Your task to perform on an android device: move an email to a new category in the gmail app Image 0: 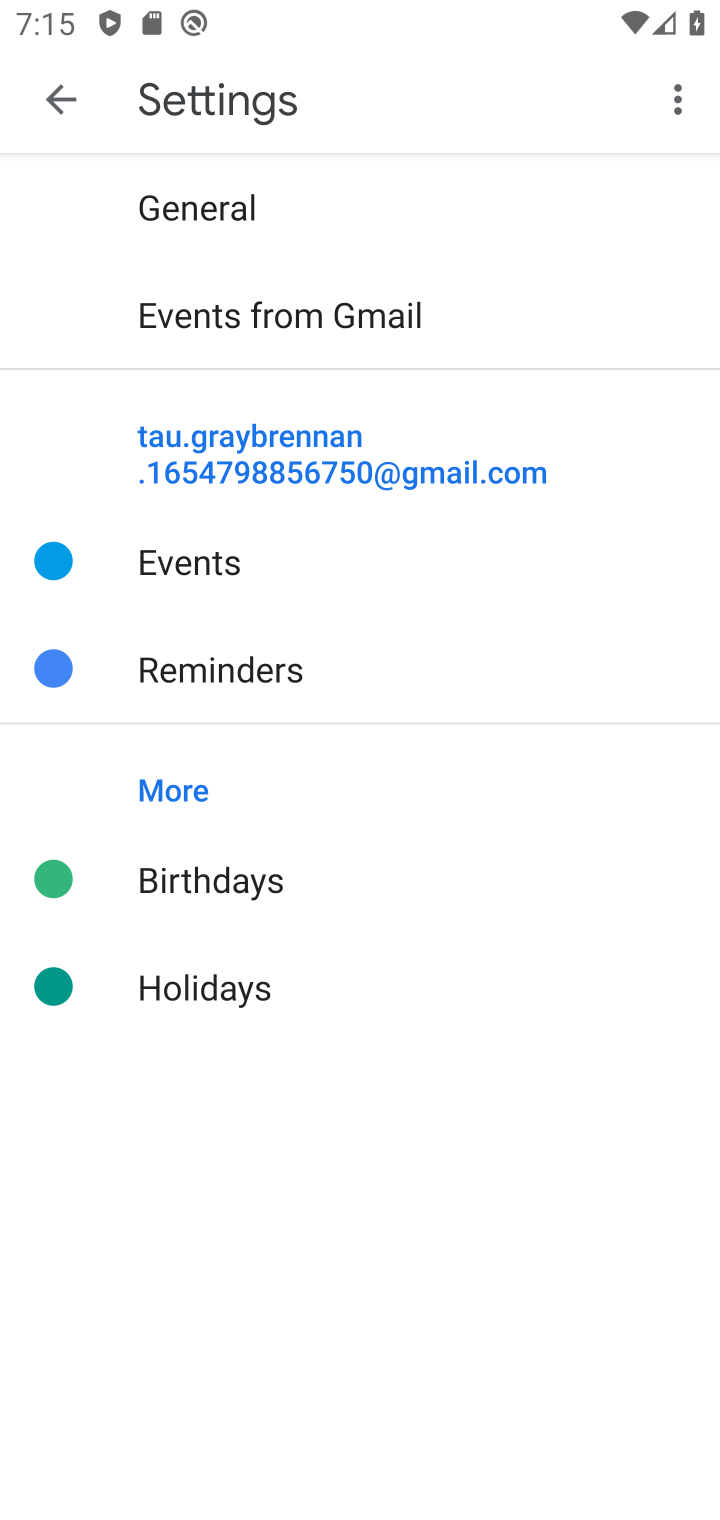
Step 0: press home button
Your task to perform on an android device: move an email to a new category in the gmail app Image 1: 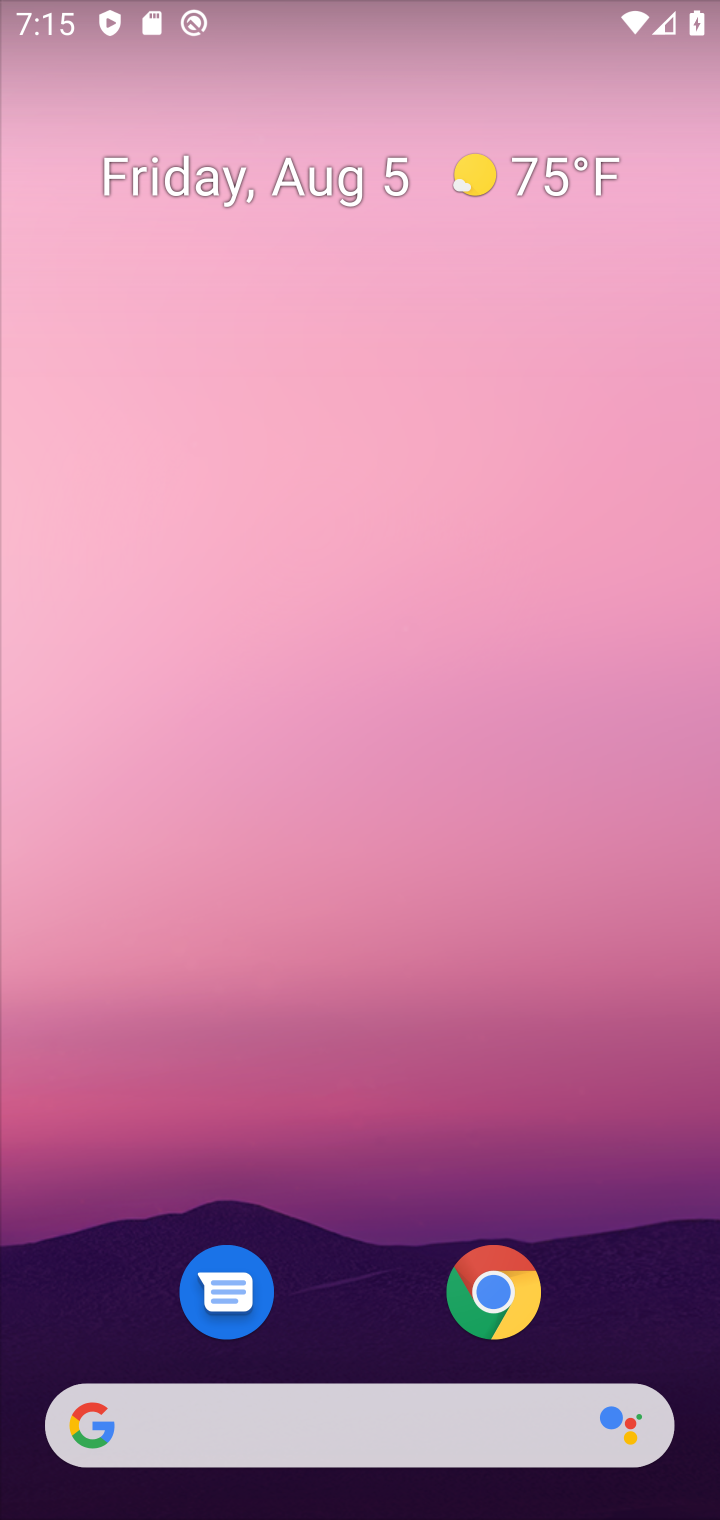
Step 1: drag from (352, 1192) to (393, 20)
Your task to perform on an android device: move an email to a new category in the gmail app Image 2: 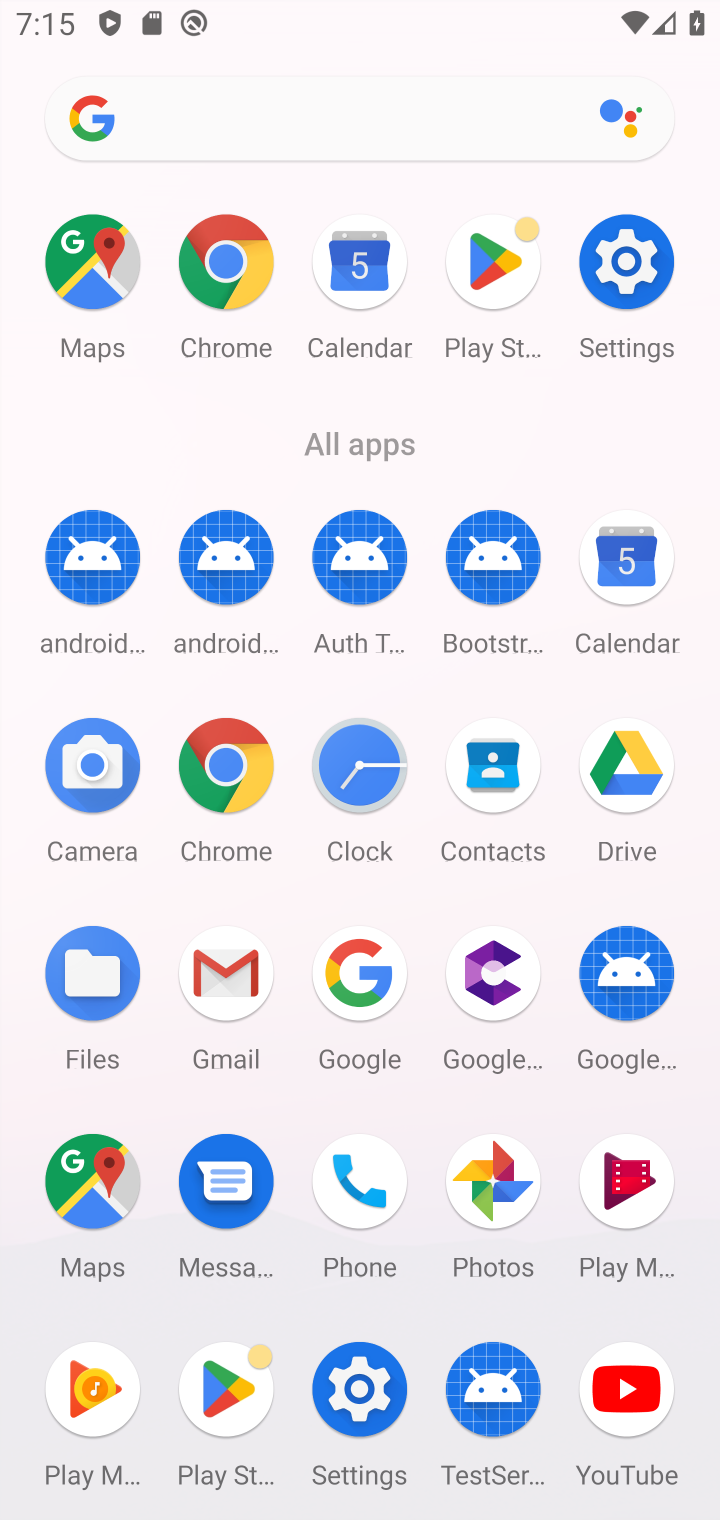
Step 2: click (234, 954)
Your task to perform on an android device: move an email to a new category in the gmail app Image 3: 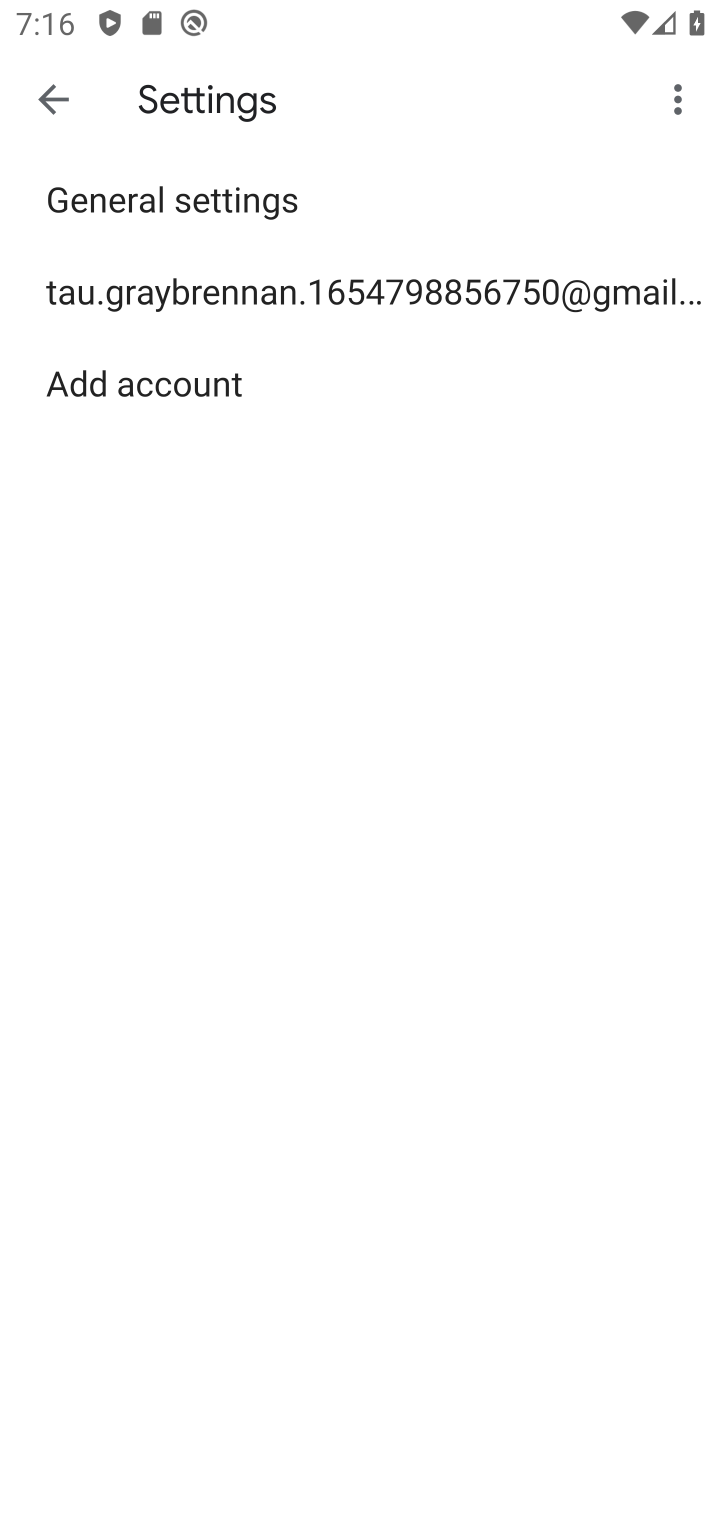
Step 3: click (44, 96)
Your task to perform on an android device: move an email to a new category in the gmail app Image 4: 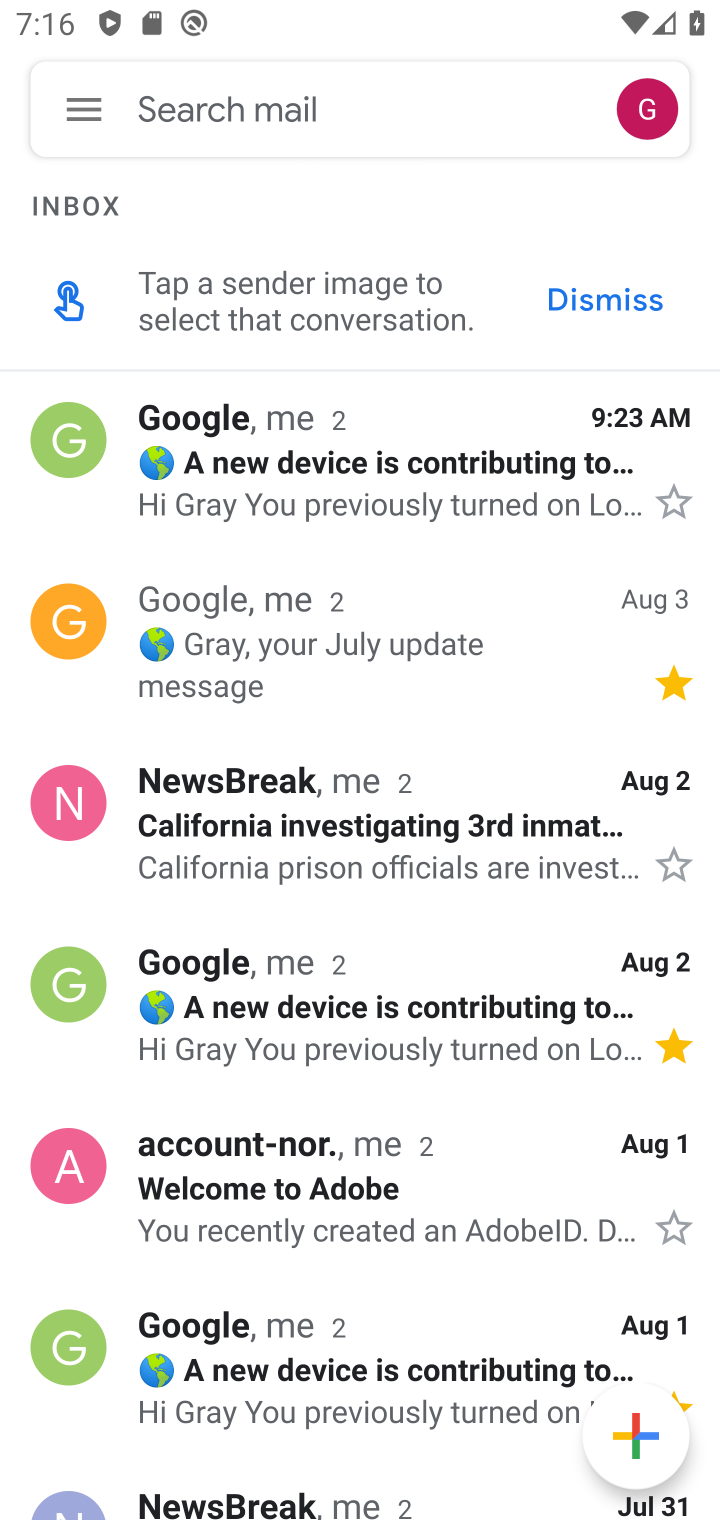
Step 4: click (390, 627)
Your task to perform on an android device: move an email to a new category in the gmail app Image 5: 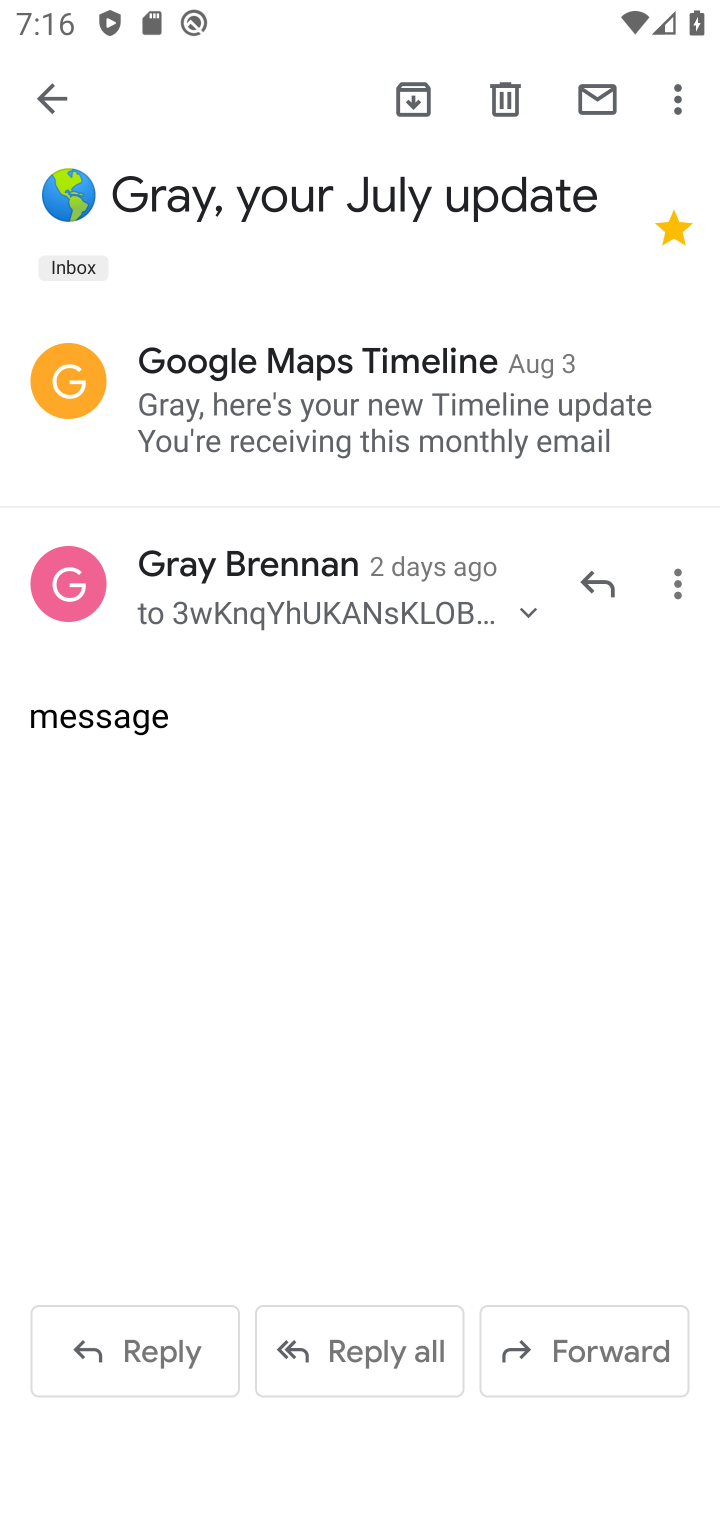
Step 5: click (680, 97)
Your task to perform on an android device: move an email to a new category in the gmail app Image 6: 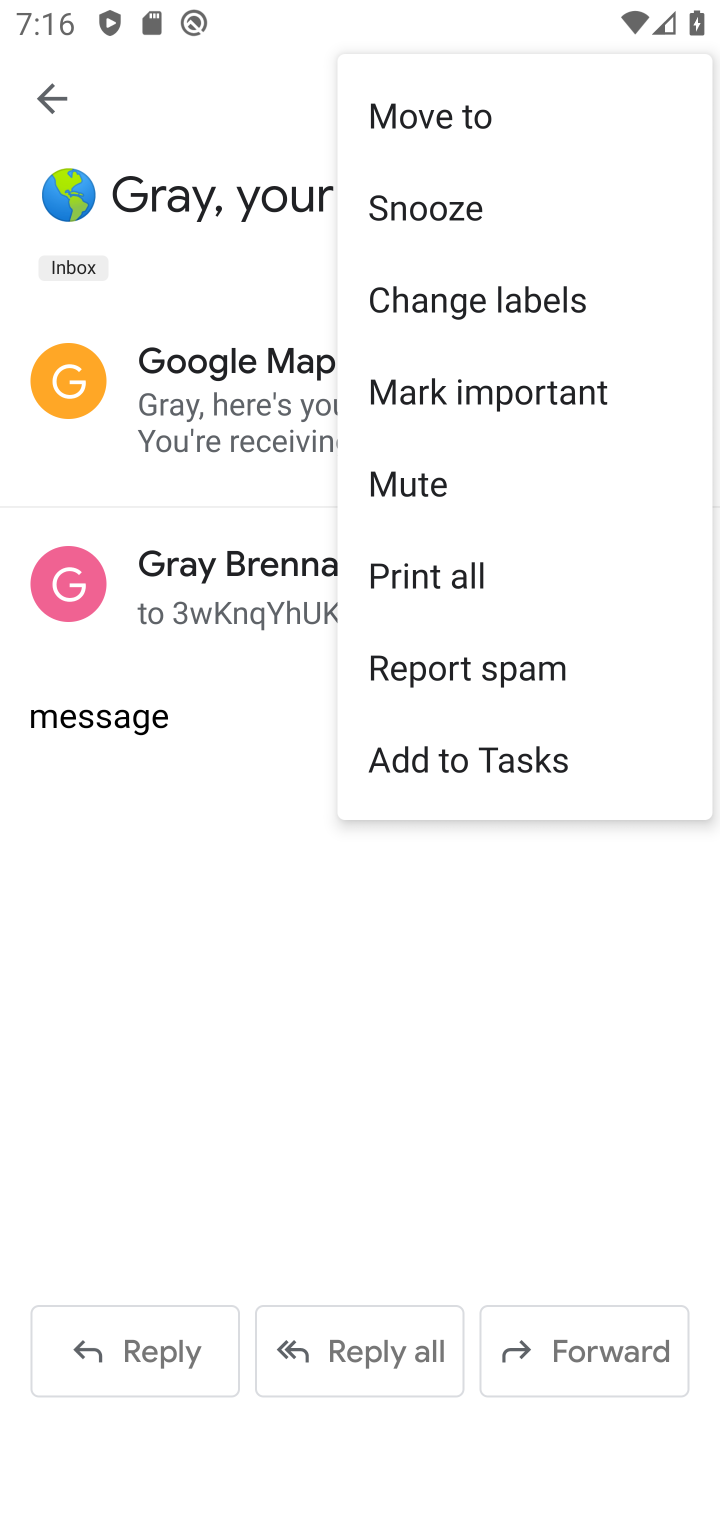
Step 6: click (538, 375)
Your task to perform on an android device: move an email to a new category in the gmail app Image 7: 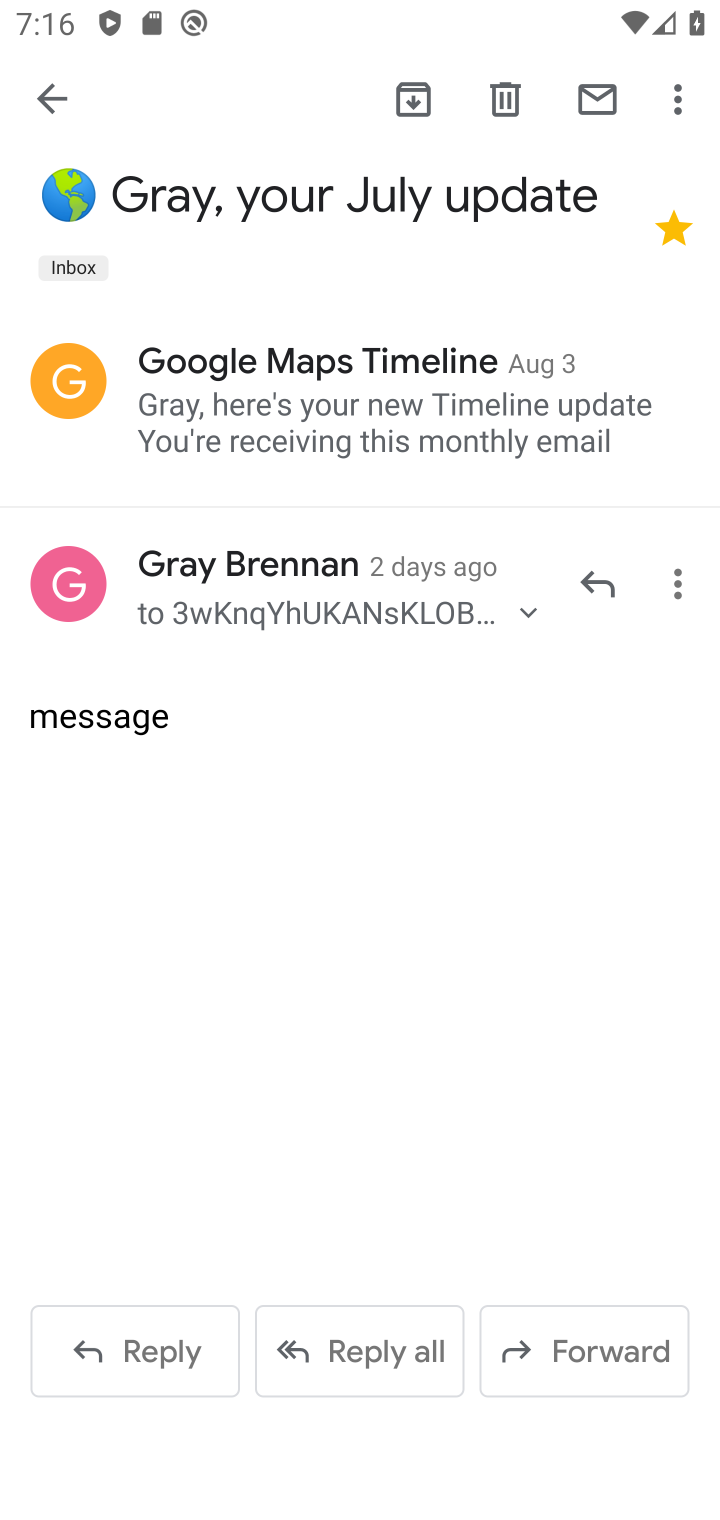
Step 7: task complete